Your task to perform on an android device: open a new tab in the chrome app Image 0: 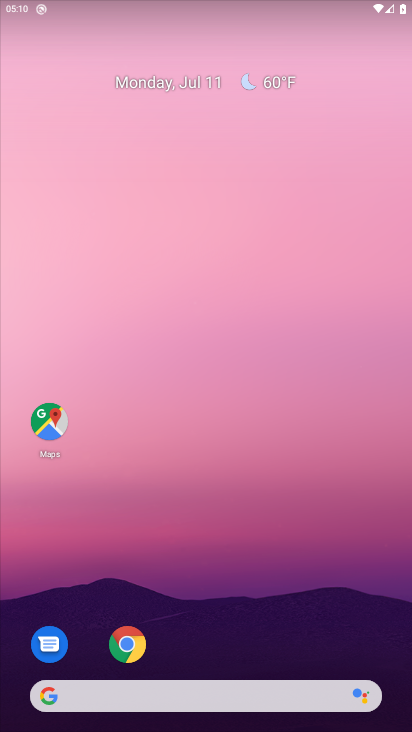
Step 0: drag from (191, 423) to (191, 311)
Your task to perform on an android device: open a new tab in the chrome app Image 1: 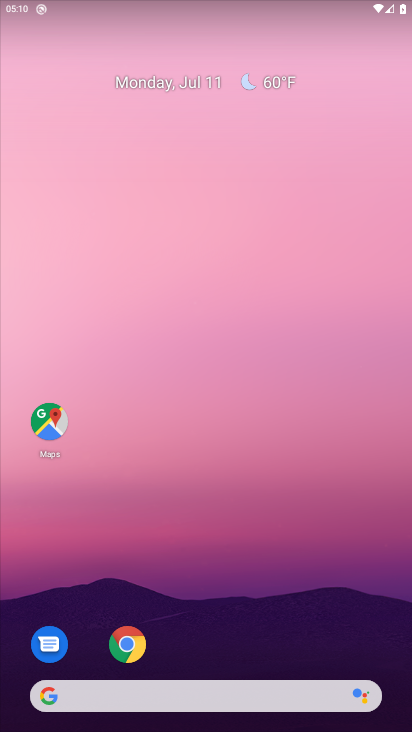
Step 1: click (130, 643)
Your task to perform on an android device: open a new tab in the chrome app Image 2: 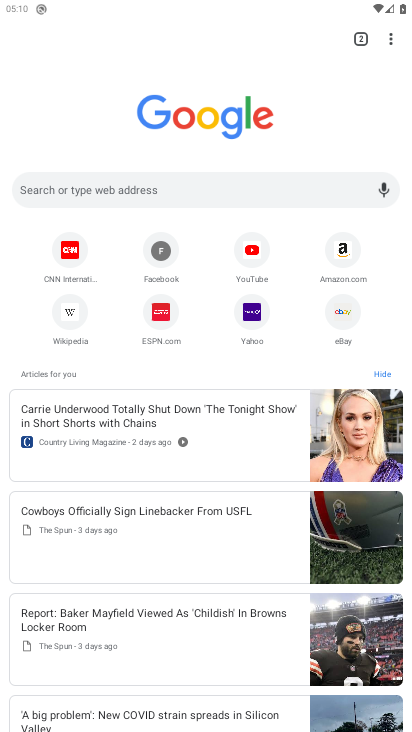
Step 2: click (392, 37)
Your task to perform on an android device: open a new tab in the chrome app Image 3: 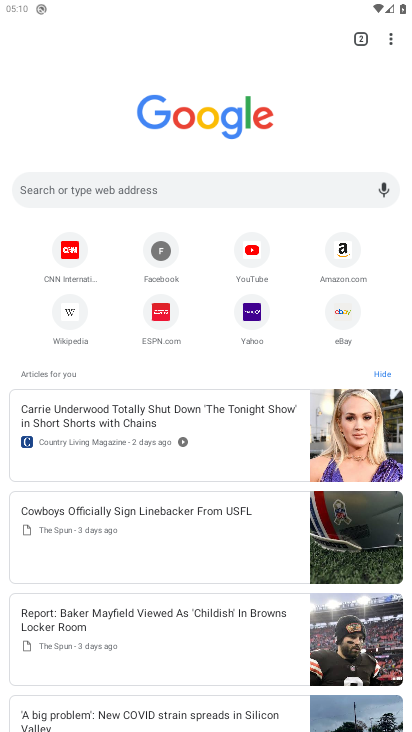
Step 3: click (392, 37)
Your task to perform on an android device: open a new tab in the chrome app Image 4: 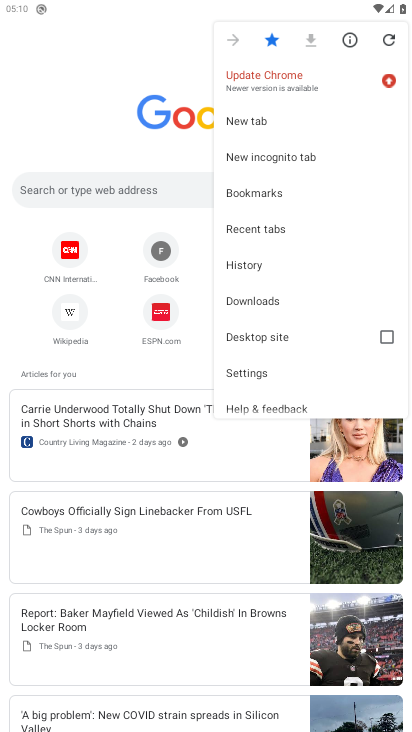
Step 4: click (262, 116)
Your task to perform on an android device: open a new tab in the chrome app Image 5: 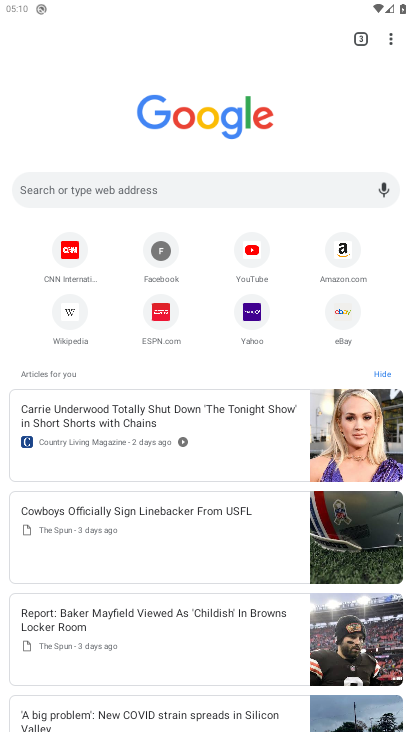
Step 5: task complete